Your task to perform on an android device: Clear the cart on ebay.com. Search for dell xps on ebay.com, select the first entry, and add it to the cart. Image 0: 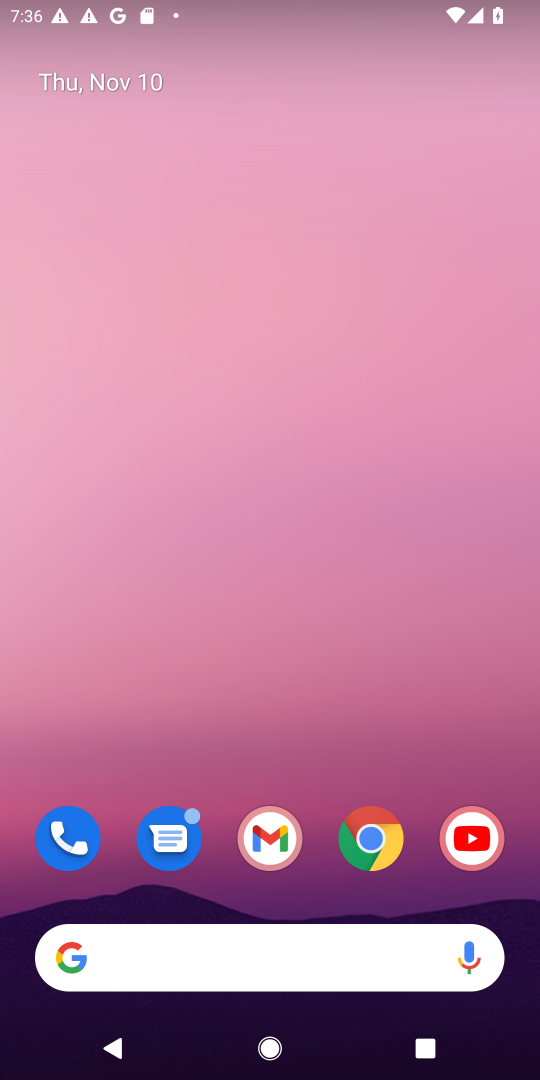
Step 0: drag from (310, 899) to (335, 42)
Your task to perform on an android device: Clear the cart on ebay.com. Search for dell xps on ebay.com, select the first entry, and add it to the cart. Image 1: 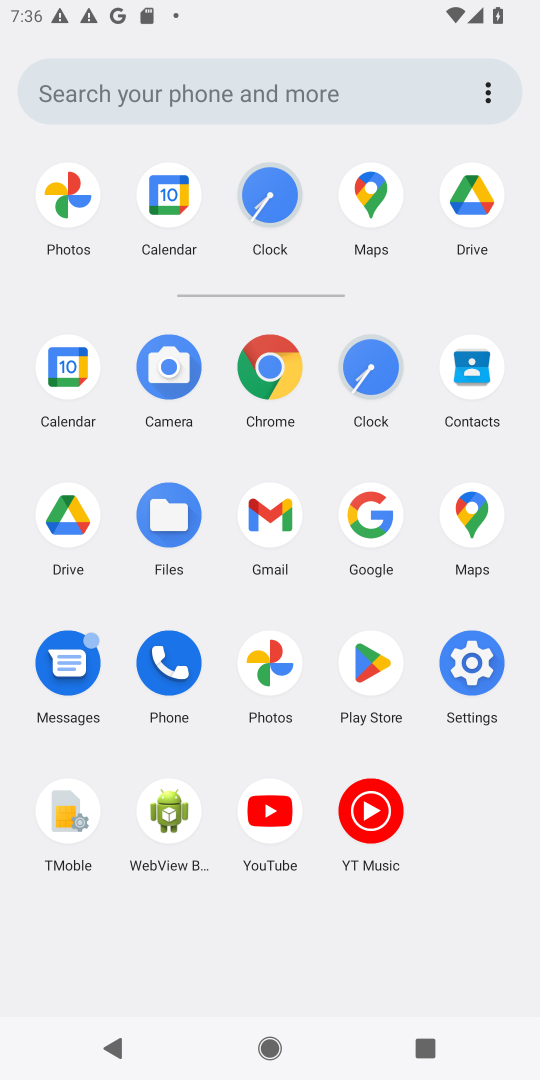
Step 1: click (270, 366)
Your task to perform on an android device: Clear the cart on ebay.com. Search for dell xps on ebay.com, select the first entry, and add it to the cart. Image 2: 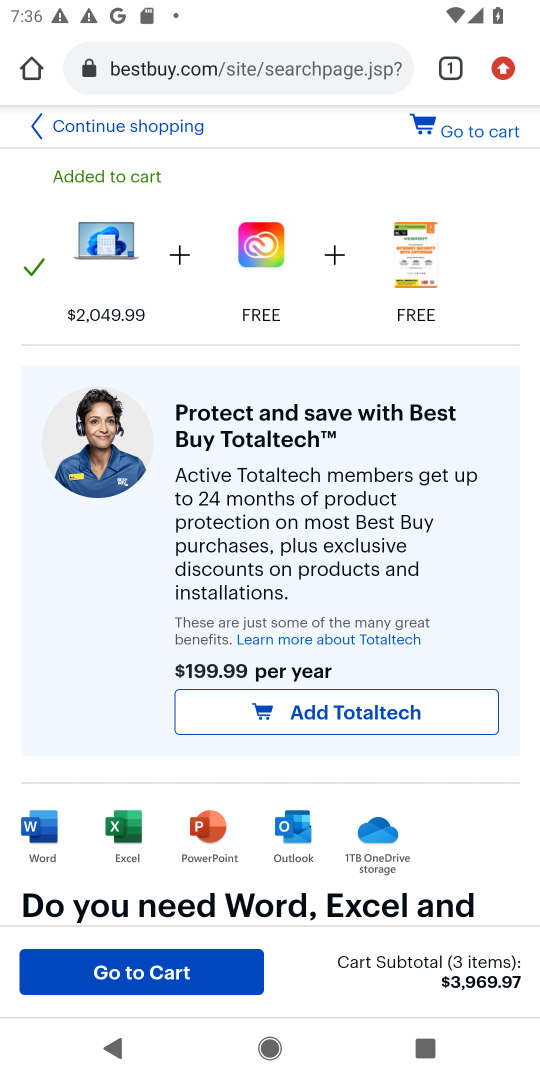
Step 2: click (296, 69)
Your task to perform on an android device: Clear the cart on ebay.com. Search for dell xps on ebay.com, select the first entry, and add it to the cart. Image 3: 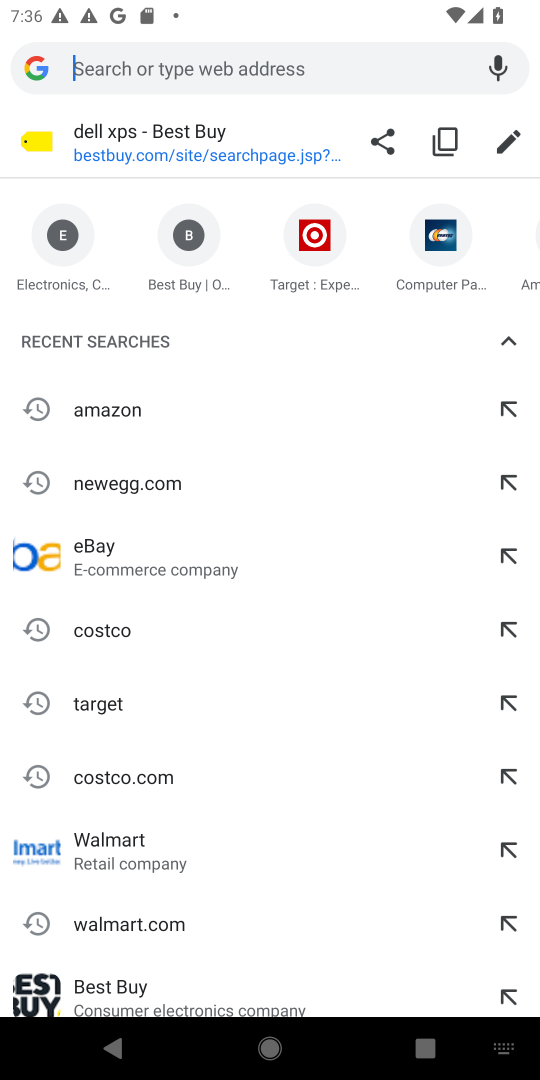
Step 3: type "ebay.com"
Your task to perform on an android device: Clear the cart on ebay.com. Search for dell xps on ebay.com, select the first entry, and add it to the cart. Image 4: 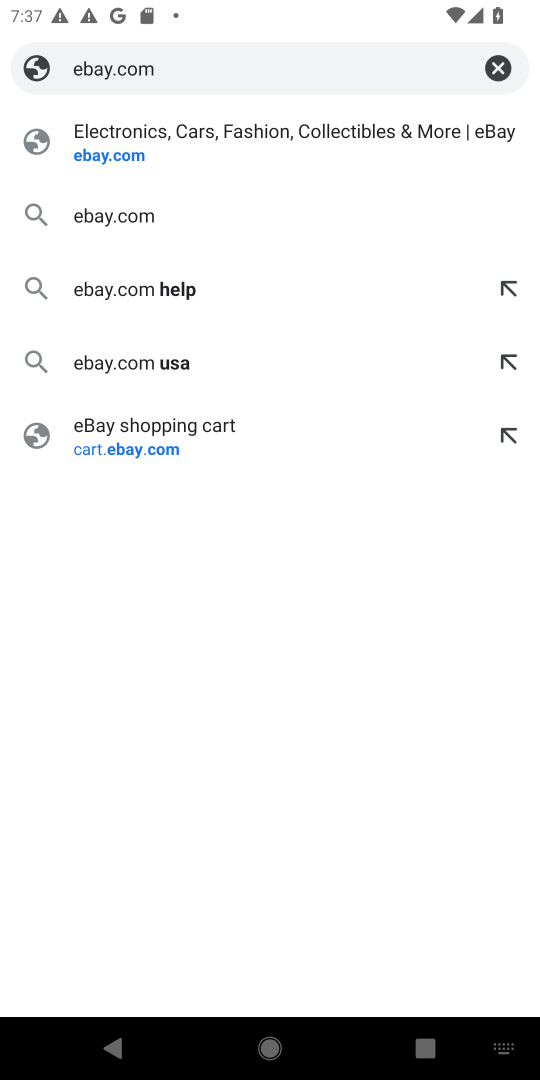
Step 4: press enter
Your task to perform on an android device: Clear the cart on ebay.com. Search for dell xps on ebay.com, select the first entry, and add it to the cart. Image 5: 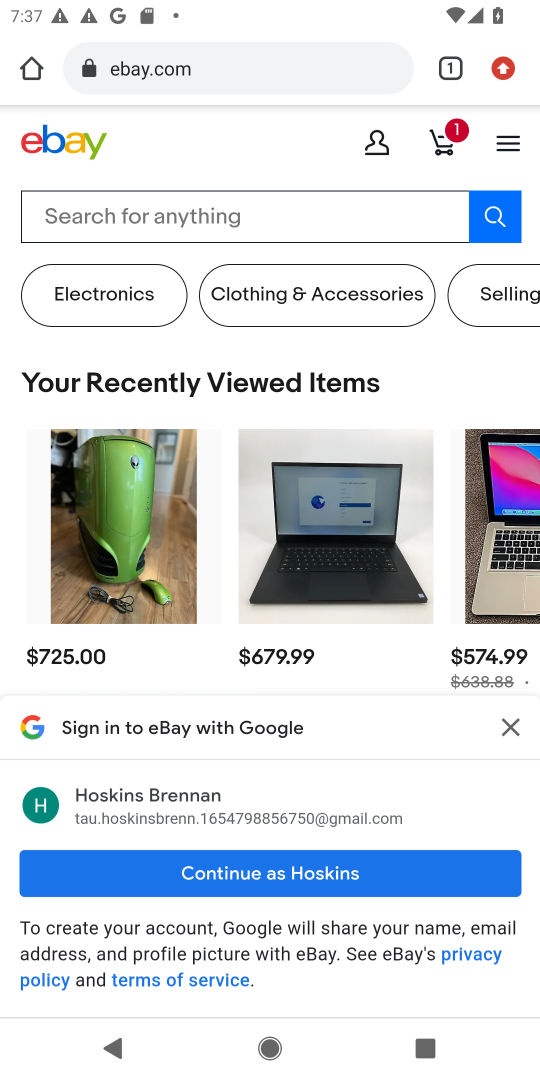
Step 5: drag from (295, 674) to (347, 41)
Your task to perform on an android device: Clear the cart on ebay.com. Search for dell xps on ebay.com, select the first entry, and add it to the cart. Image 6: 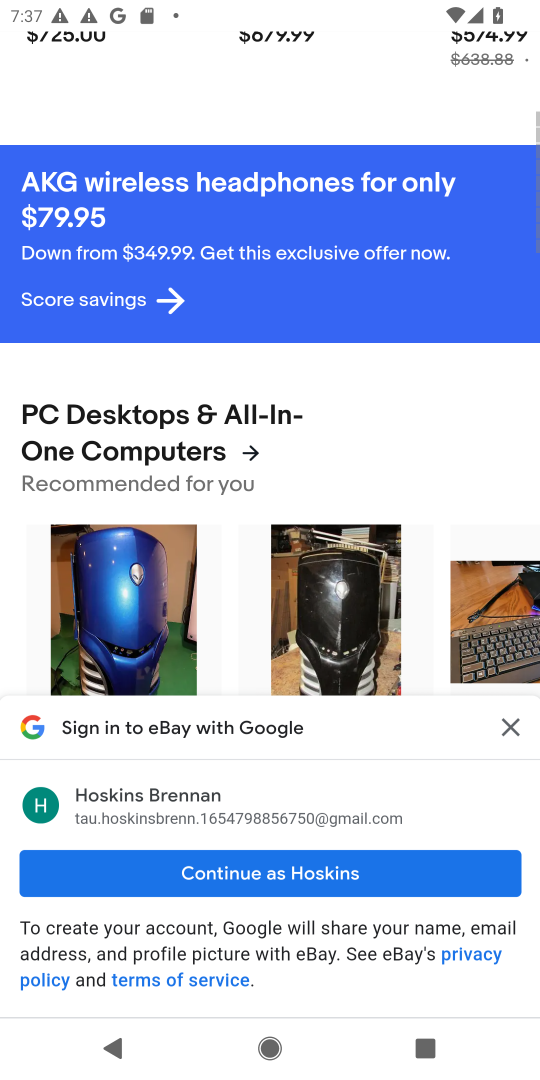
Step 6: drag from (301, 639) to (359, 136)
Your task to perform on an android device: Clear the cart on ebay.com. Search for dell xps on ebay.com, select the first entry, and add it to the cart. Image 7: 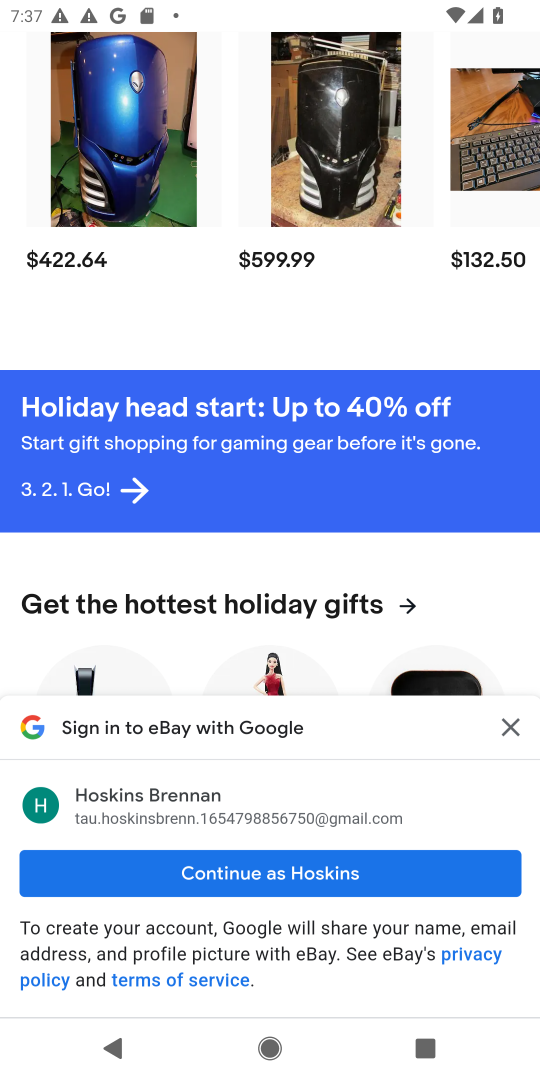
Step 7: drag from (288, 660) to (313, 153)
Your task to perform on an android device: Clear the cart on ebay.com. Search for dell xps on ebay.com, select the first entry, and add it to the cart. Image 8: 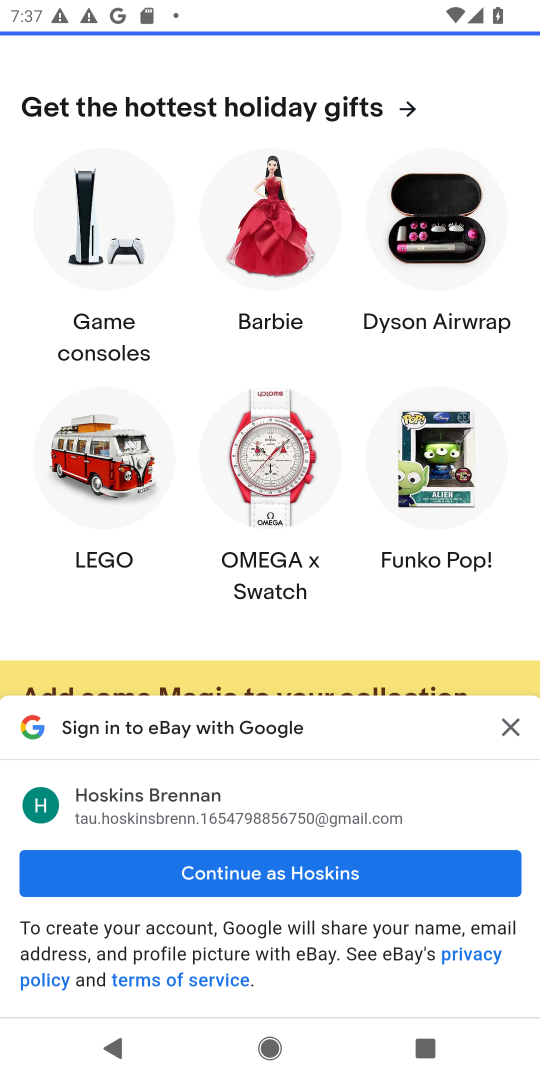
Step 8: drag from (277, 296) to (376, 730)
Your task to perform on an android device: Clear the cart on ebay.com. Search for dell xps on ebay.com, select the first entry, and add it to the cart. Image 9: 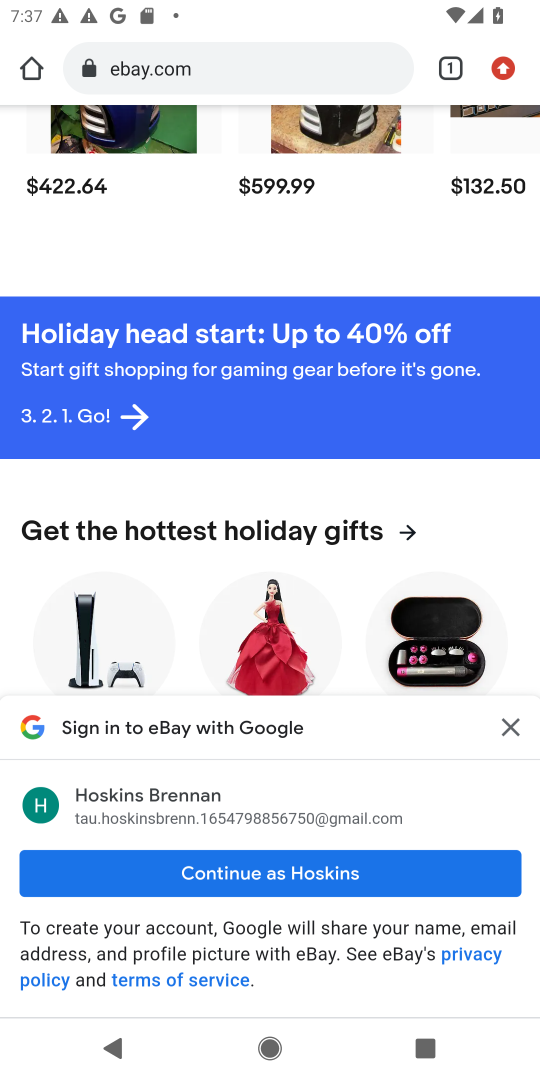
Step 9: drag from (179, 203) to (270, 880)
Your task to perform on an android device: Clear the cart on ebay.com. Search for dell xps on ebay.com, select the first entry, and add it to the cart. Image 10: 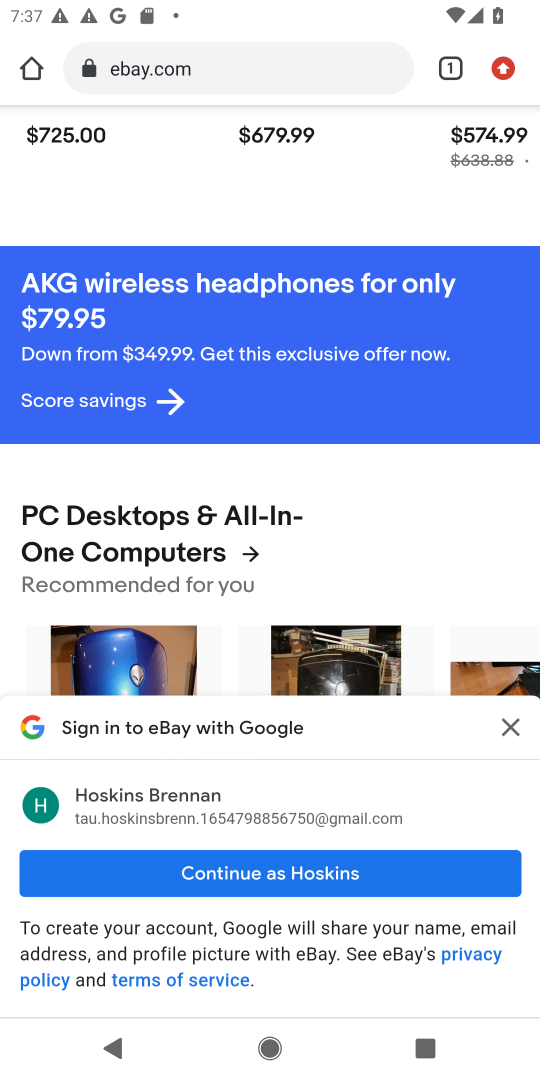
Step 10: drag from (254, 152) to (291, 887)
Your task to perform on an android device: Clear the cart on ebay.com. Search for dell xps on ebay.com, select the first entry, and add it to the cart. Image 11: 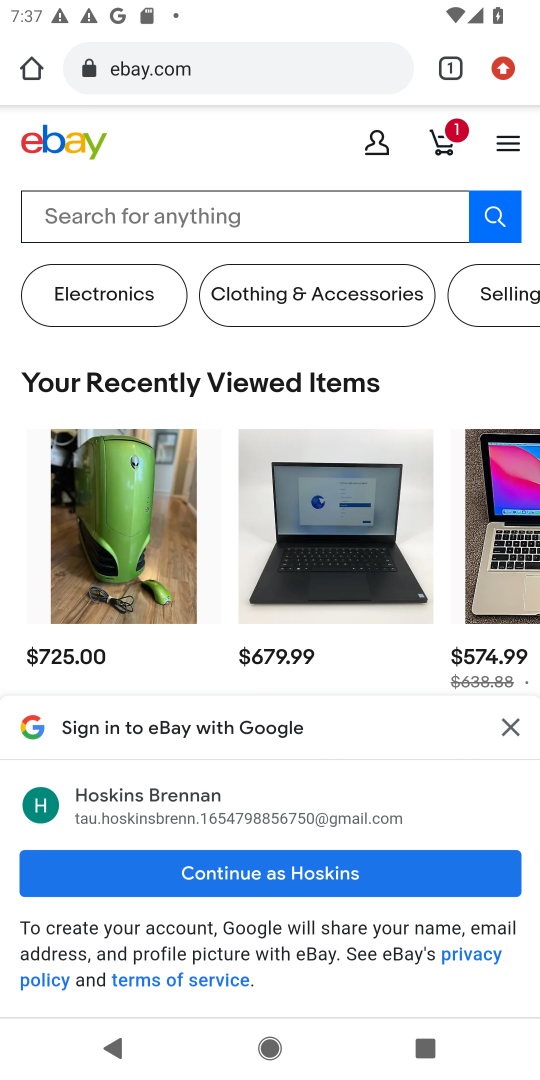
Step 11: drag from (246, 711) to (256, 892)
Your task to perform on an android device: Clear the cart on ebay.com. Search for dell xps on ebay.com, select the first entry, and add it to the cart. Image 12: 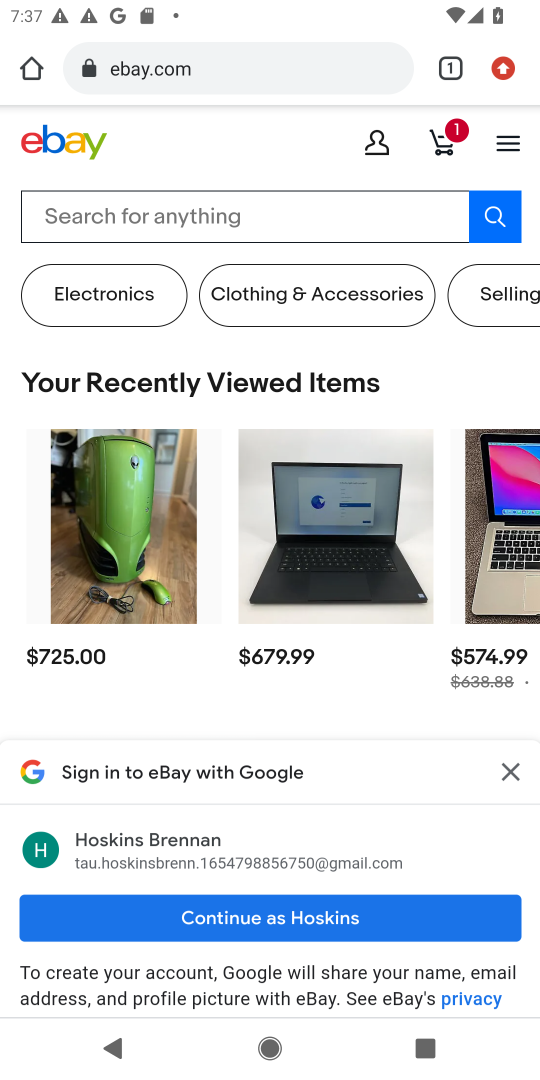
Step 12: click (439, 148)
Your task to perform on an android device: Clear the cart on ebay.com. Search for dell xps on ebay.com, select the first entry, and add it to the cart. Image 13: 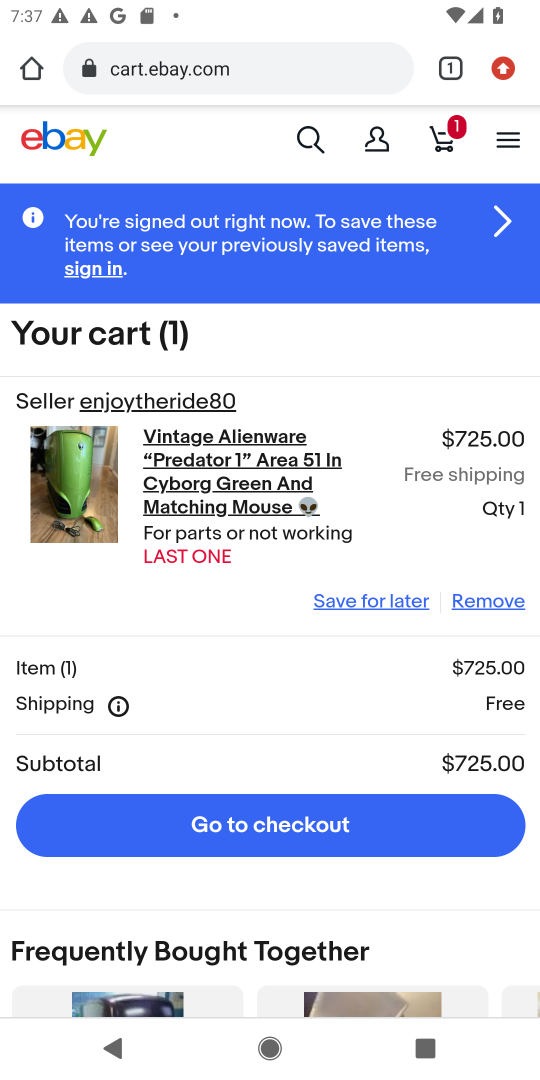
Step 13: click (469, 605)
Your task to perform on an android device: Clear the cart on ebay.com. Search for dell xps on ebay.com, select the first entry, and add it to the cart. Image 14: 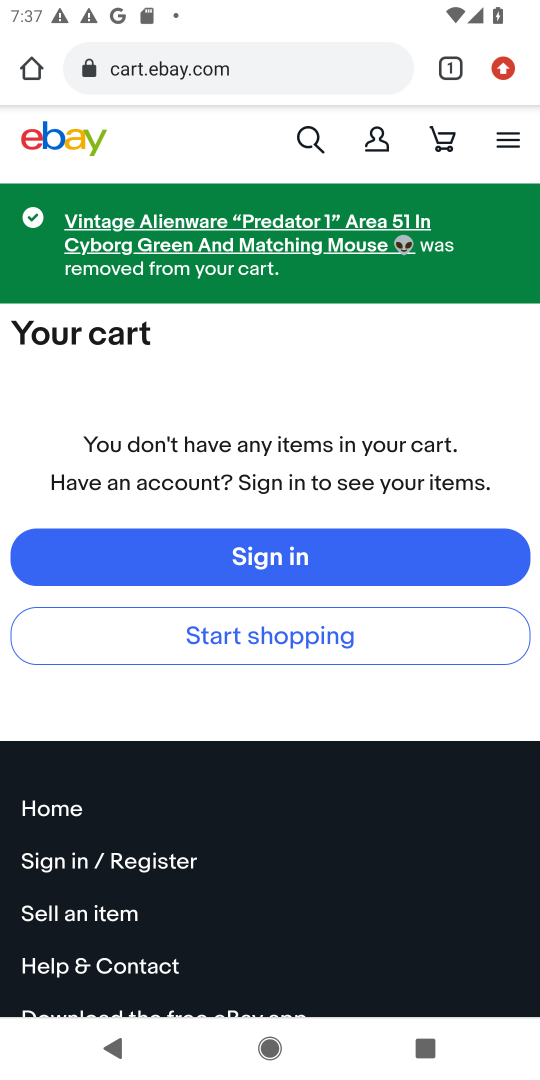
Step 14: click (315, 149)
Your task to perform on an android device: Clear the cart on ebay.com. Search for dell xps on ebay.com, select the first entry, and add it to the cart. Image 15: 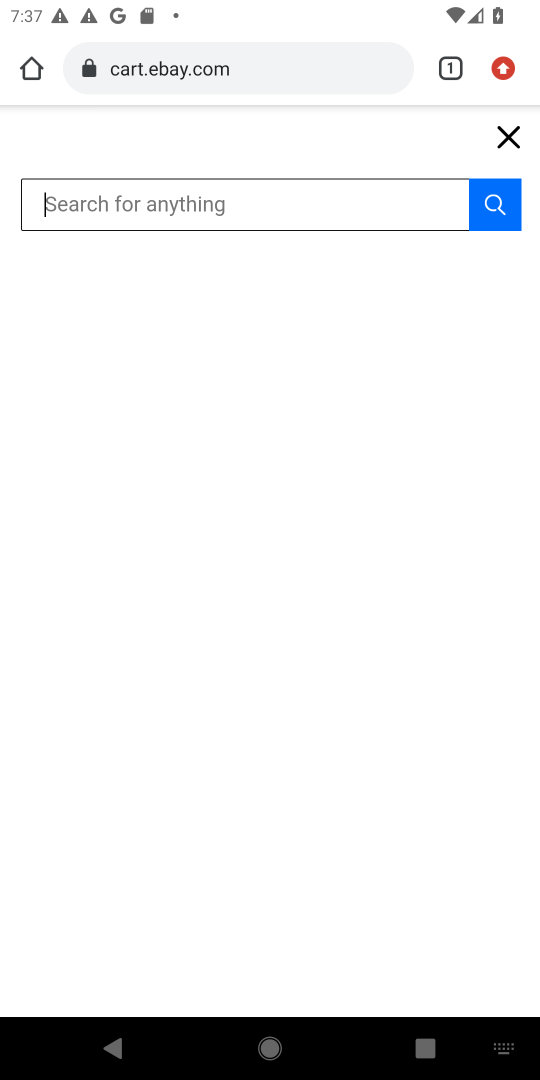
Step 15: type "dell xps"
Your task to perform on an android device: Clear the cart on ebay.com. Search for dell xps on ebay.com, select the first entry, and add it to the cart. Image 16: 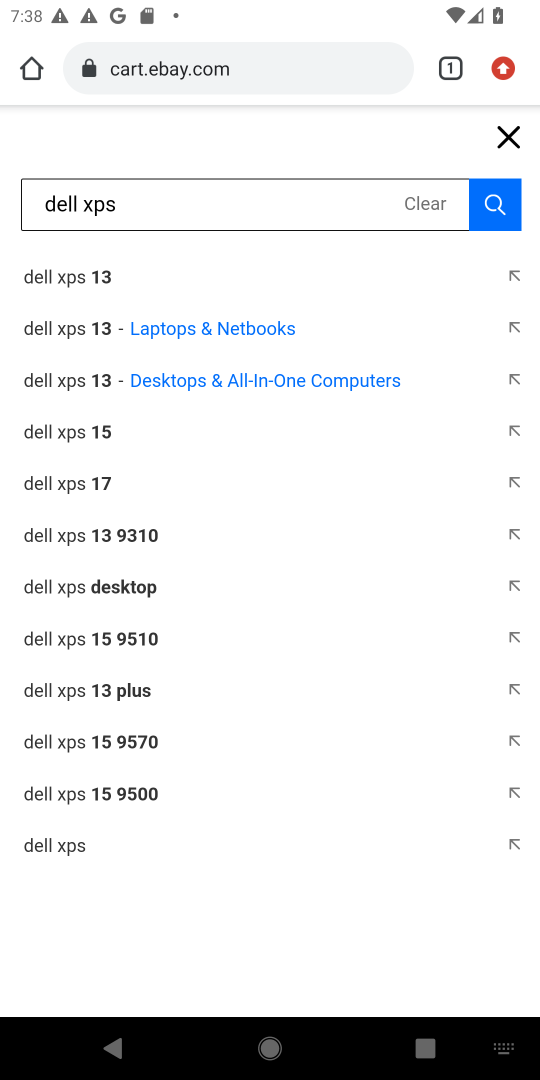
Step 16: press enter
Your task to perform on an android device: Clear the cart on ebay.com. Search for dell xps on ebay.com, select the first entry, and add it to the cart. Image 17: 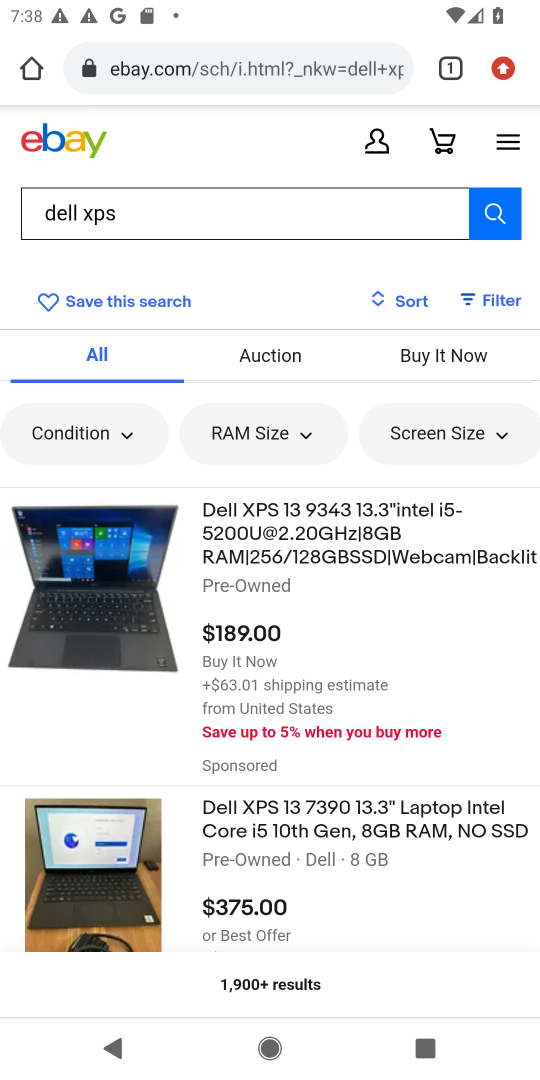
Step 17: click (337, 534)
Your task to perform on an android device: Clear the cart on ebay.com. Search for dell xps on ebay.com, select the first entry, and add it to the cart. Image 18: 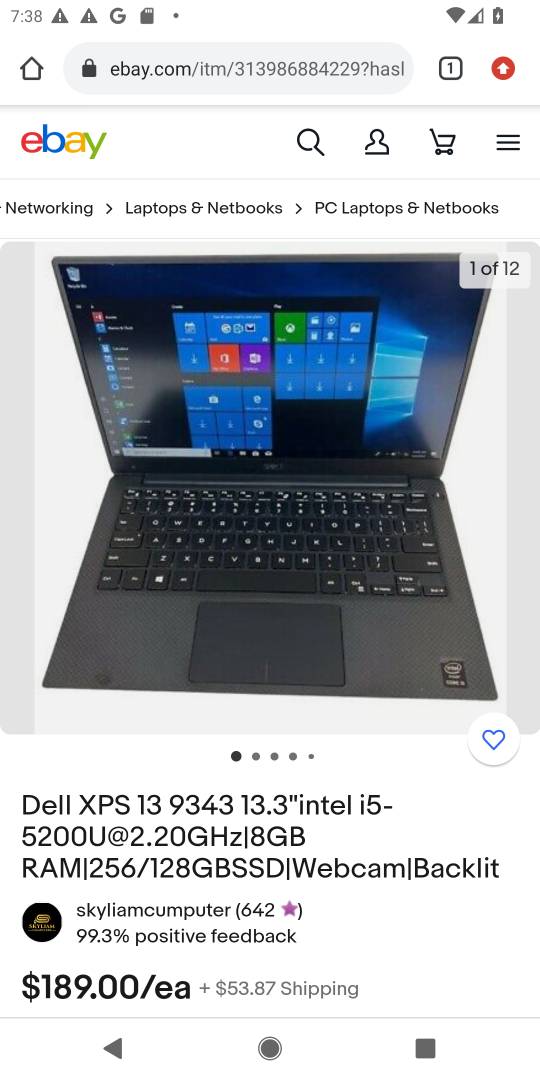
Step 18: drag from (311, 820) to (434, 236)
Your task to perform on an android device: Clear the cart on ebay.com. Search for dell xps on ebay.com, select the first entry, and add it to the cart. Image 19: 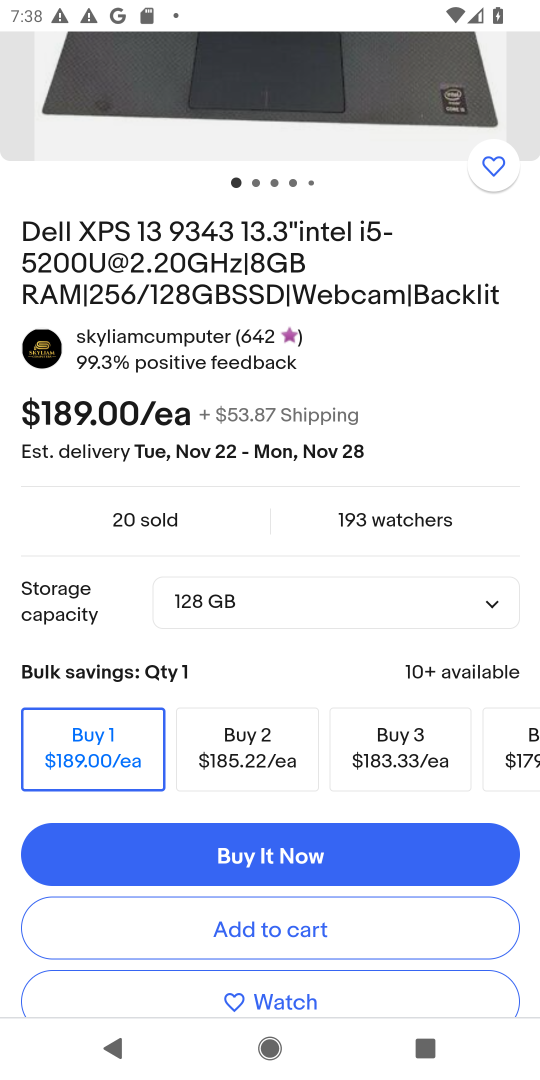
Step 19: click (333, 931)
Your task to perform on an android device: Clear the cart on ebay.com. Search for dell xps on ebay.com, select the first entry, and add it to the cart. Image 20: 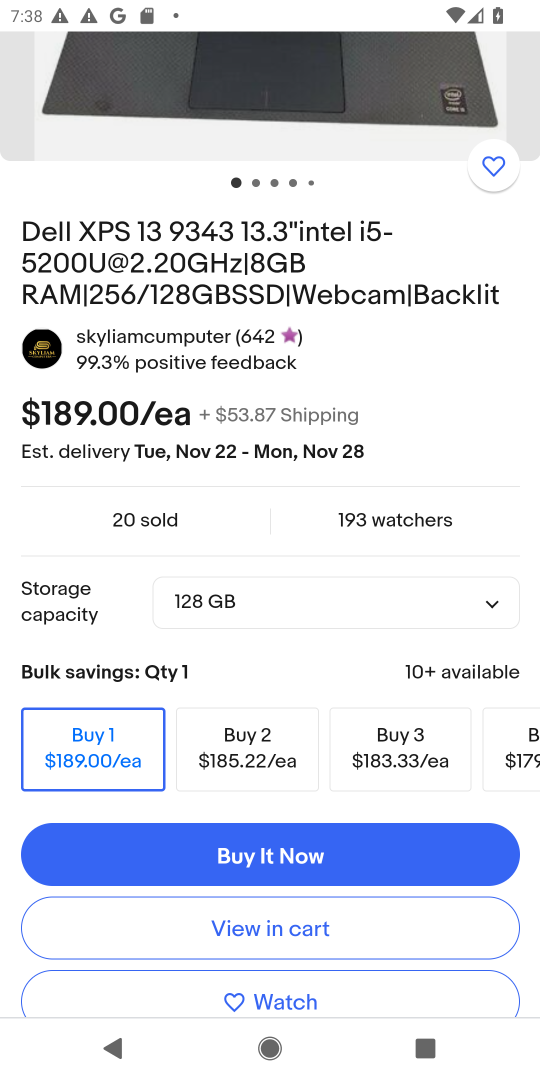
Step 20: task complete